Your task to perform on an android device: Open Chrome and go to settings Image 0: 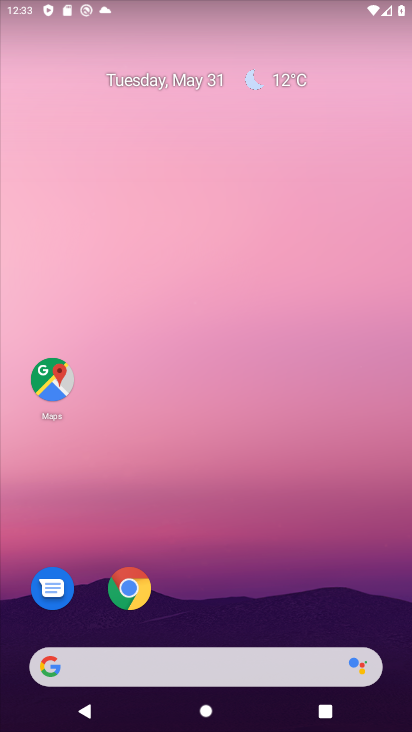
Step 0: click (127, 586)
Your task to perform on an android device: Open Chrome and go to settings Image 1: 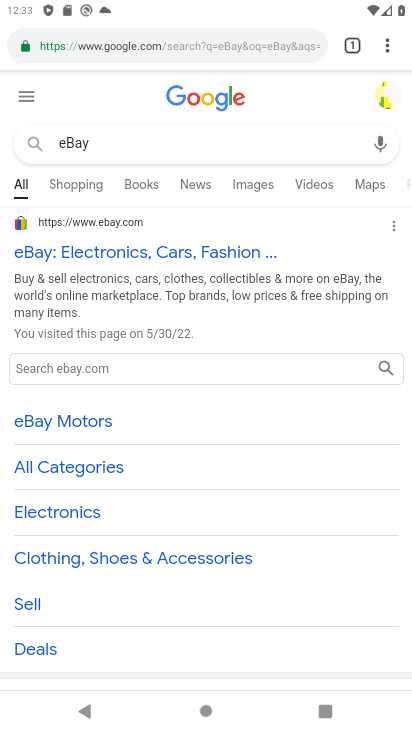
Step 1: click (388, 45)
Your task to perform on an android device: Open Chrome and go to settings Image 2: 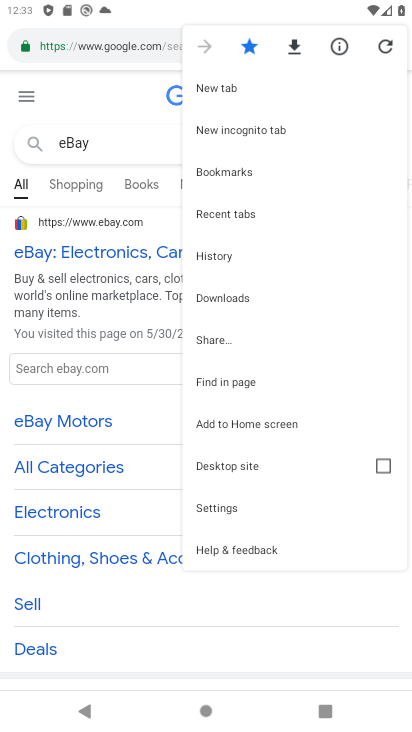
Step 2: click (220, 507)
Your task to perform on an android device: Open Chrome and go to settings Image 3: 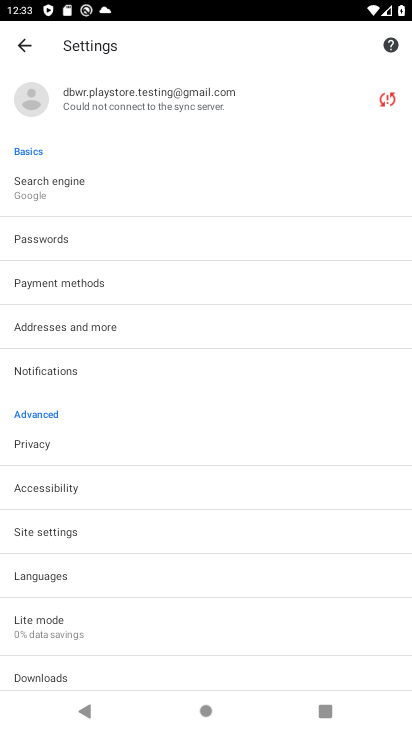
Step 3: task complete